Your task to perform on an android device: Search for seafood restaurants on Google Maps Image 0: 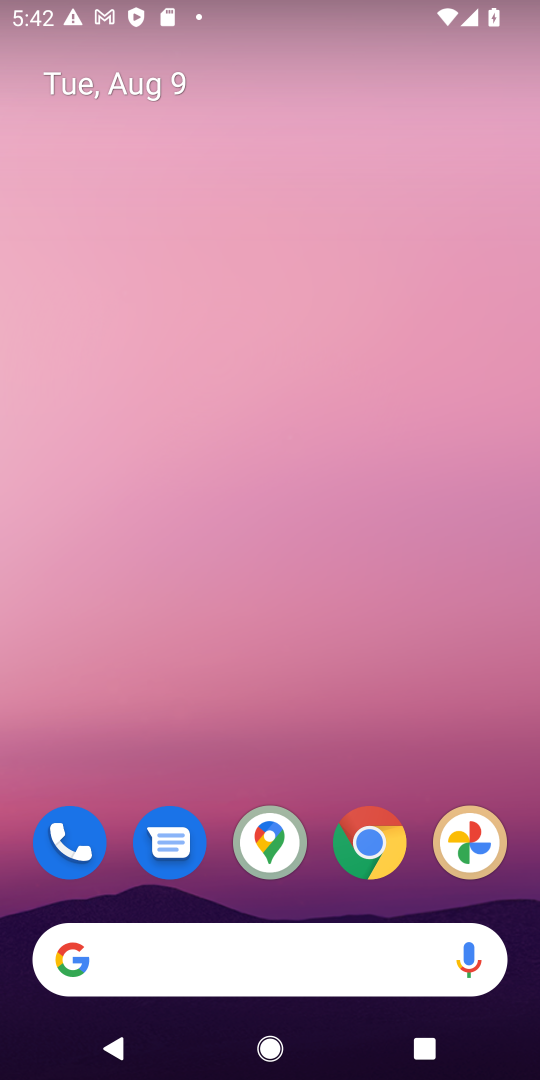
Step 0: drag from (307, 1006) to (303, 46)
Your task to perform on an android device: Search for seafood restaurants on Google Maps Image 1: 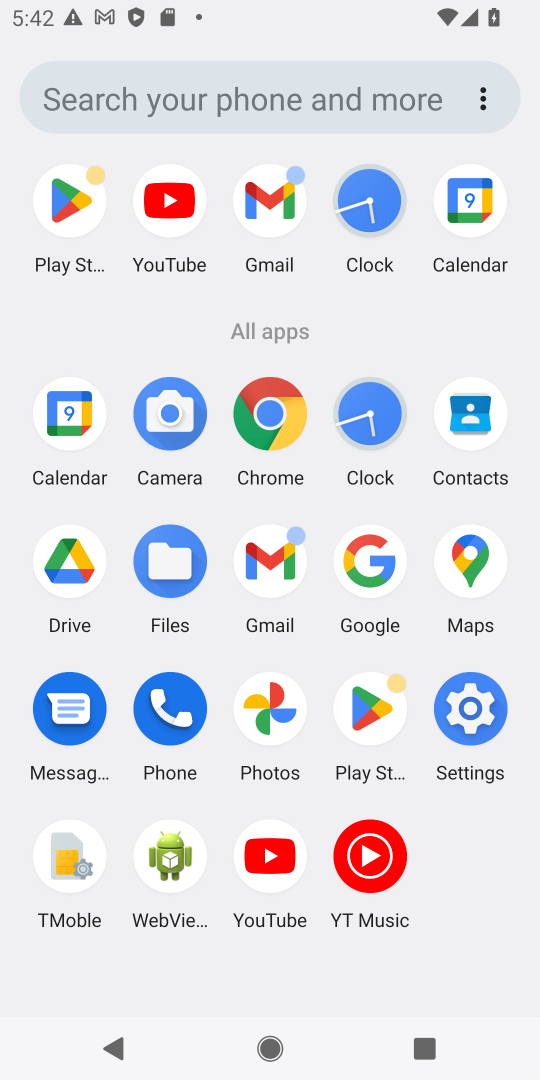
Step 1: click (486, 560)
Your task to perform on an android device: Search for seafood restaurants on Google Maps Image 2: 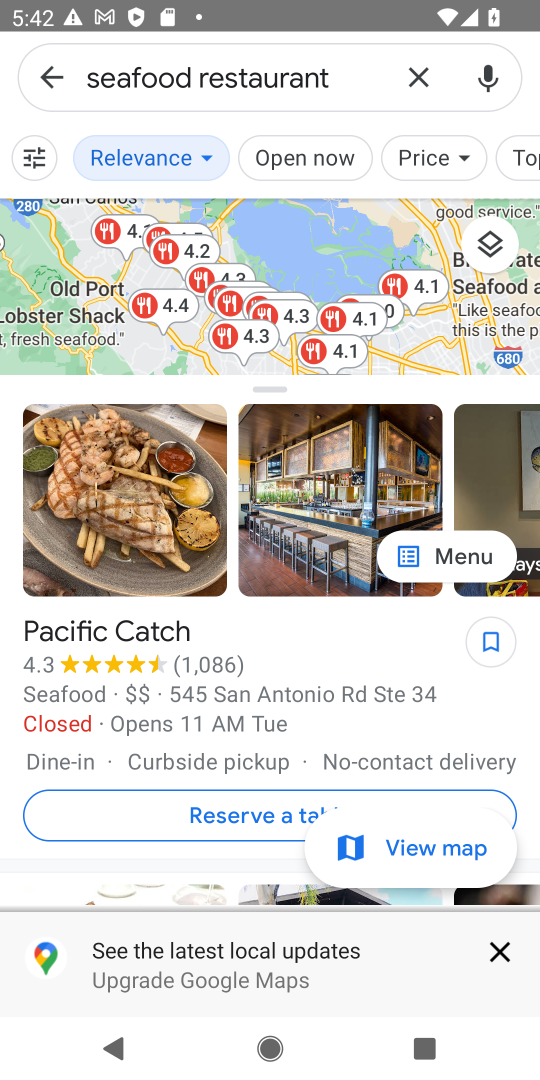
Step 2: task complete